Your task to perform on an android device: Open CNN.com Image 0: 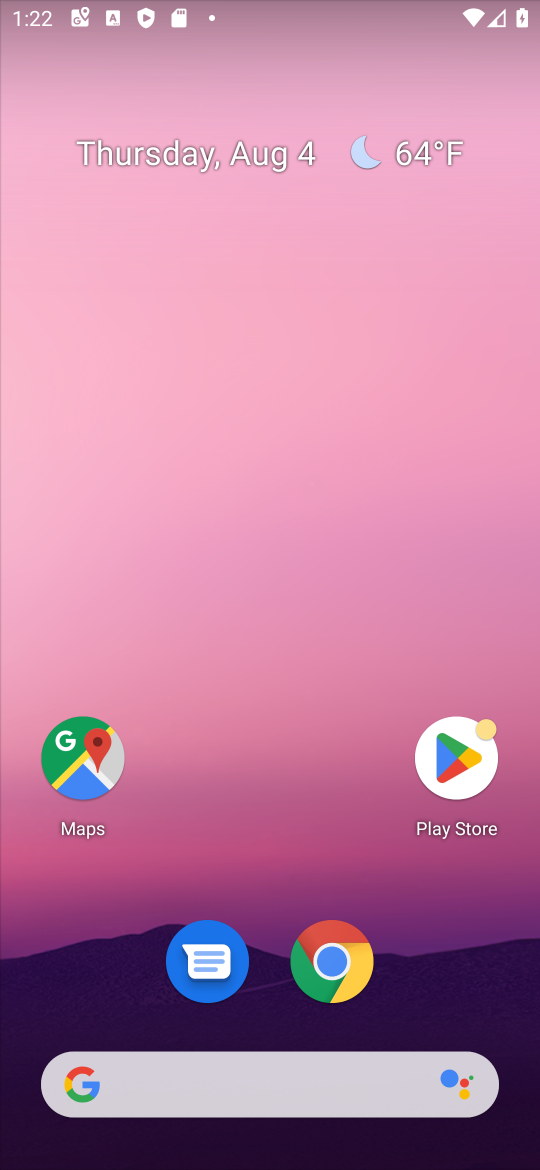
Step 0: click (353, 1086)
Your task to perform on an android device: Open CNN.com Image 1: 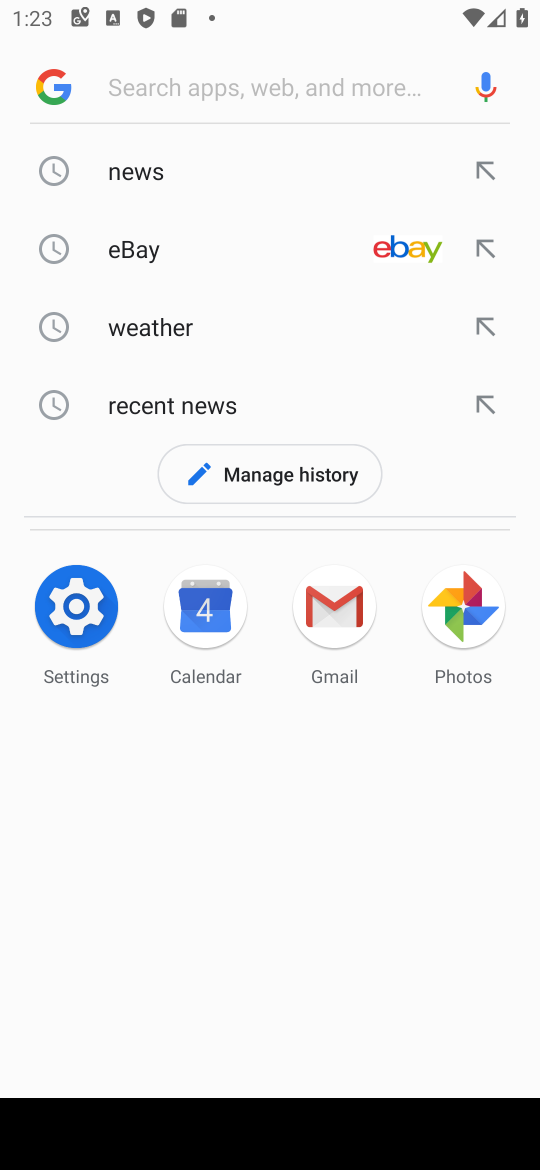
Step 1: type "cnn.com"
Your task to perform on an android device: Open CNN.com Image 2: 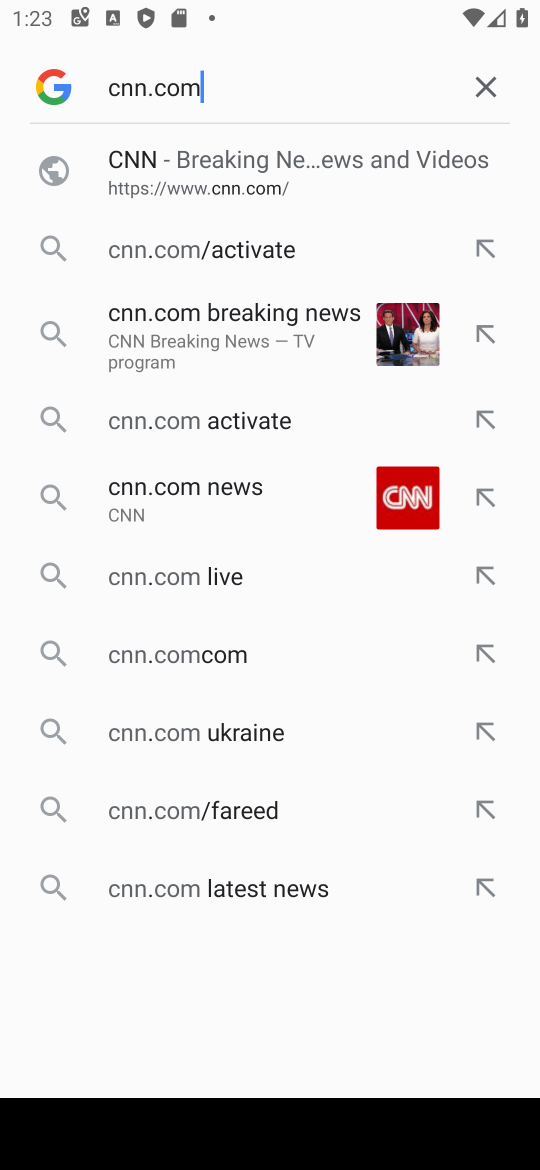
Step 2: click (262, 181)
Your task to perform on an android device: Open CNN.com Image 3: 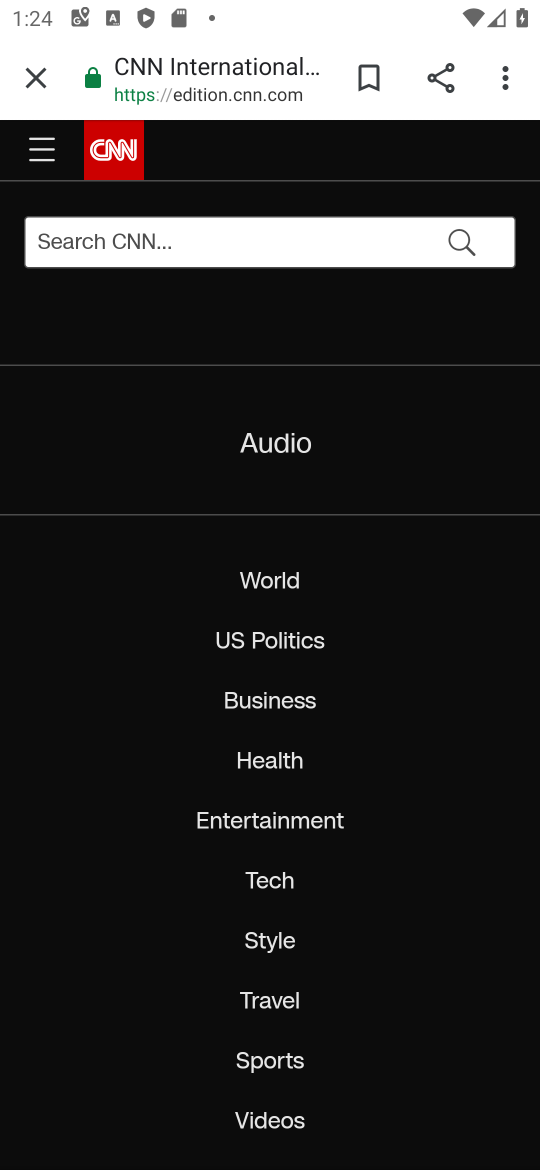
Step 3: task complete